Your task to perform on an android device: turn on location history Image 0: 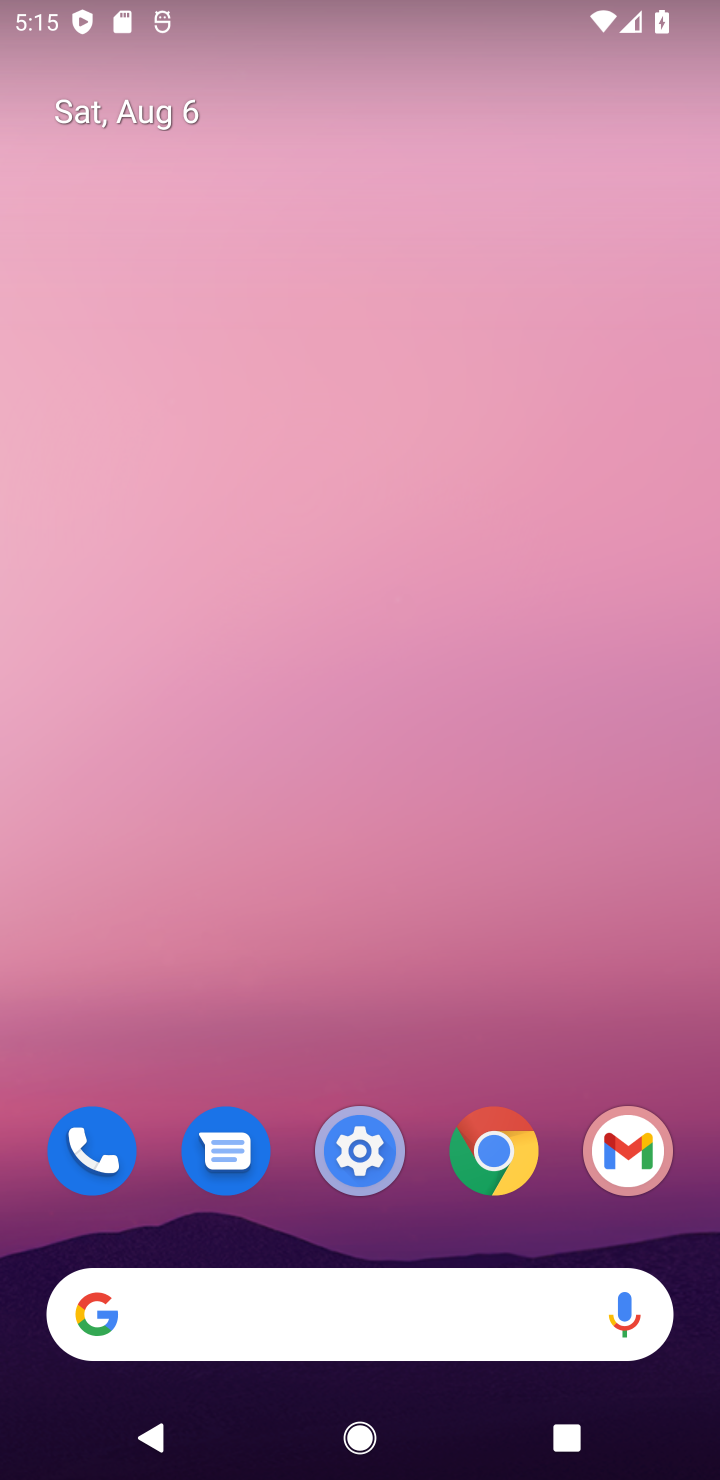
Step 0: drag from (256, 708) to (324, 380)
Your task to perform on an android device: turn on location history Image 1: 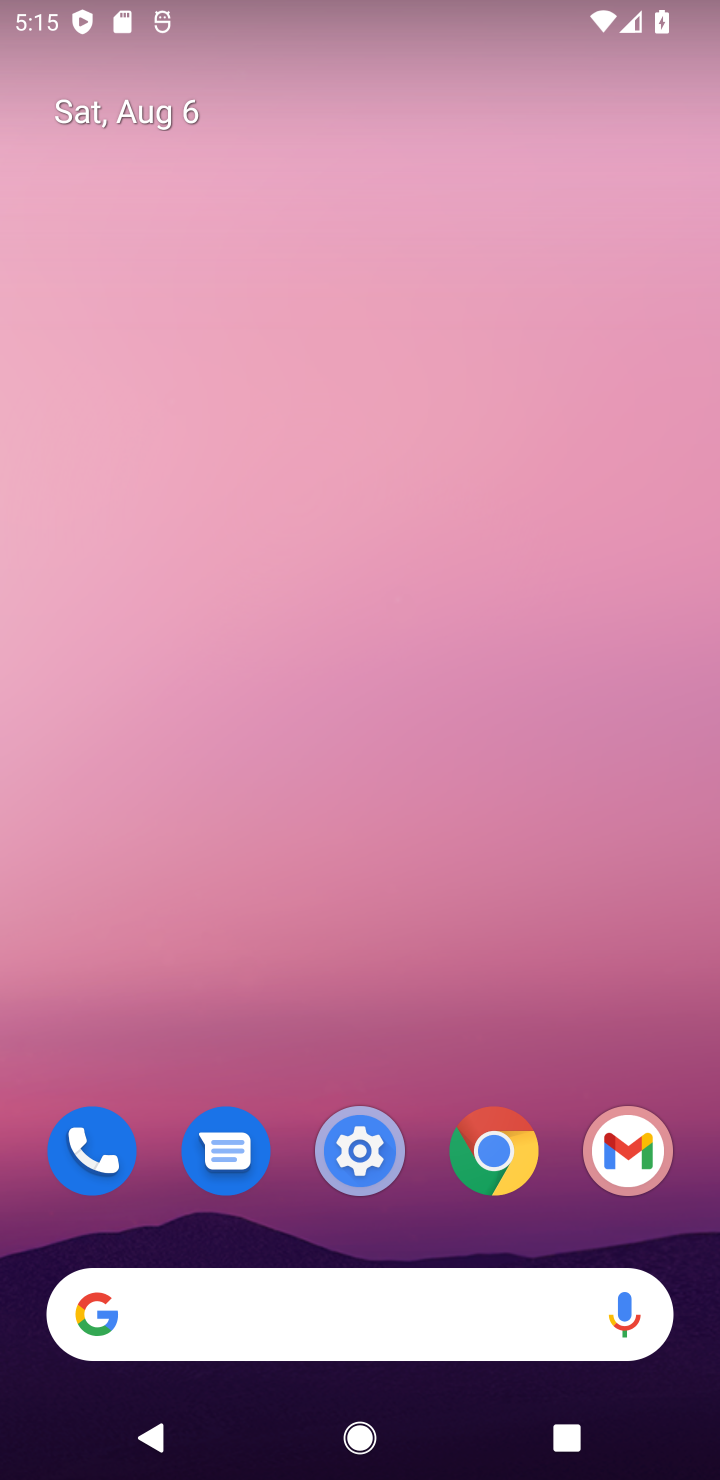
Step 1: drag from (145, 1069) to (406, 291)
Your task to perform on an android device: turn on location history Image 2: 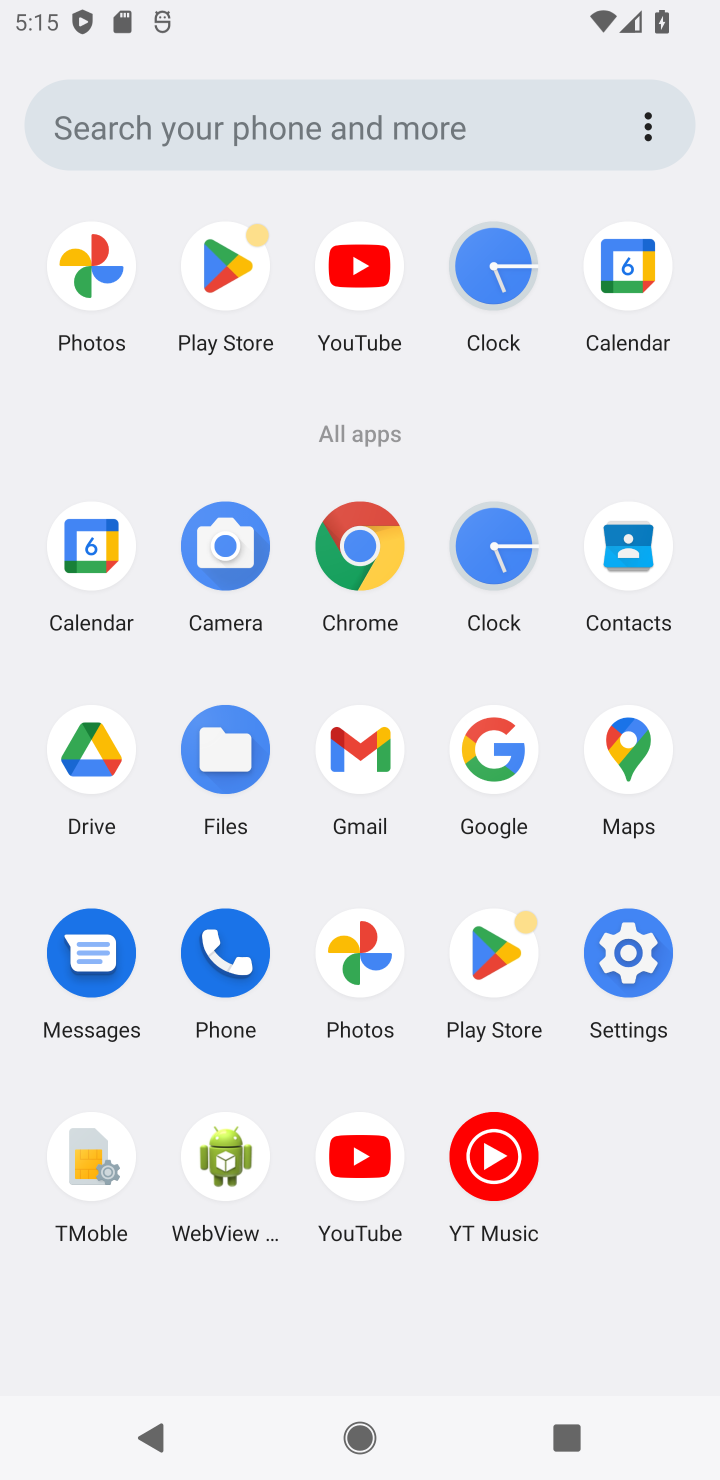
Step 2: click (613, 764)
Your task to perform on an android device: turn on location history Image 3: 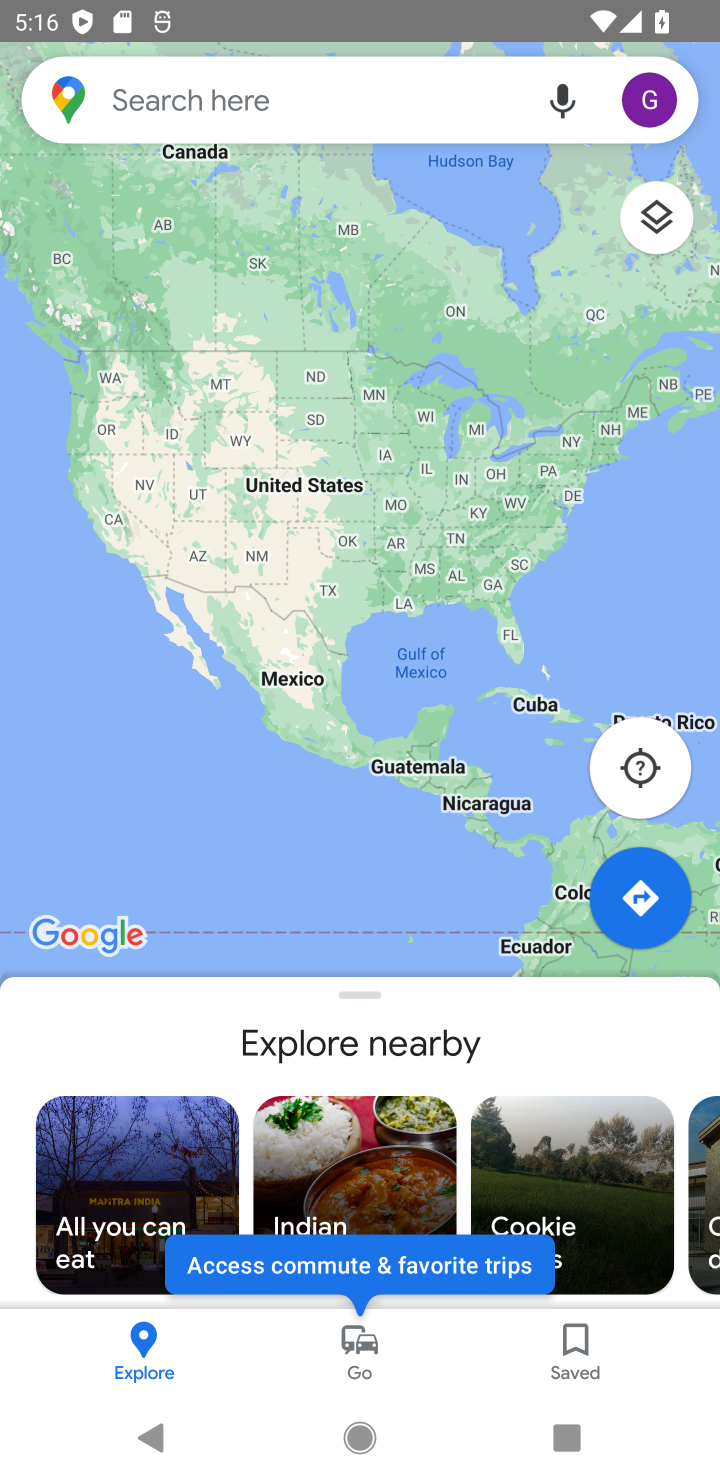
Step 3: click (653, 101)
Your task to perform on an android device: turn on location history Image 4: 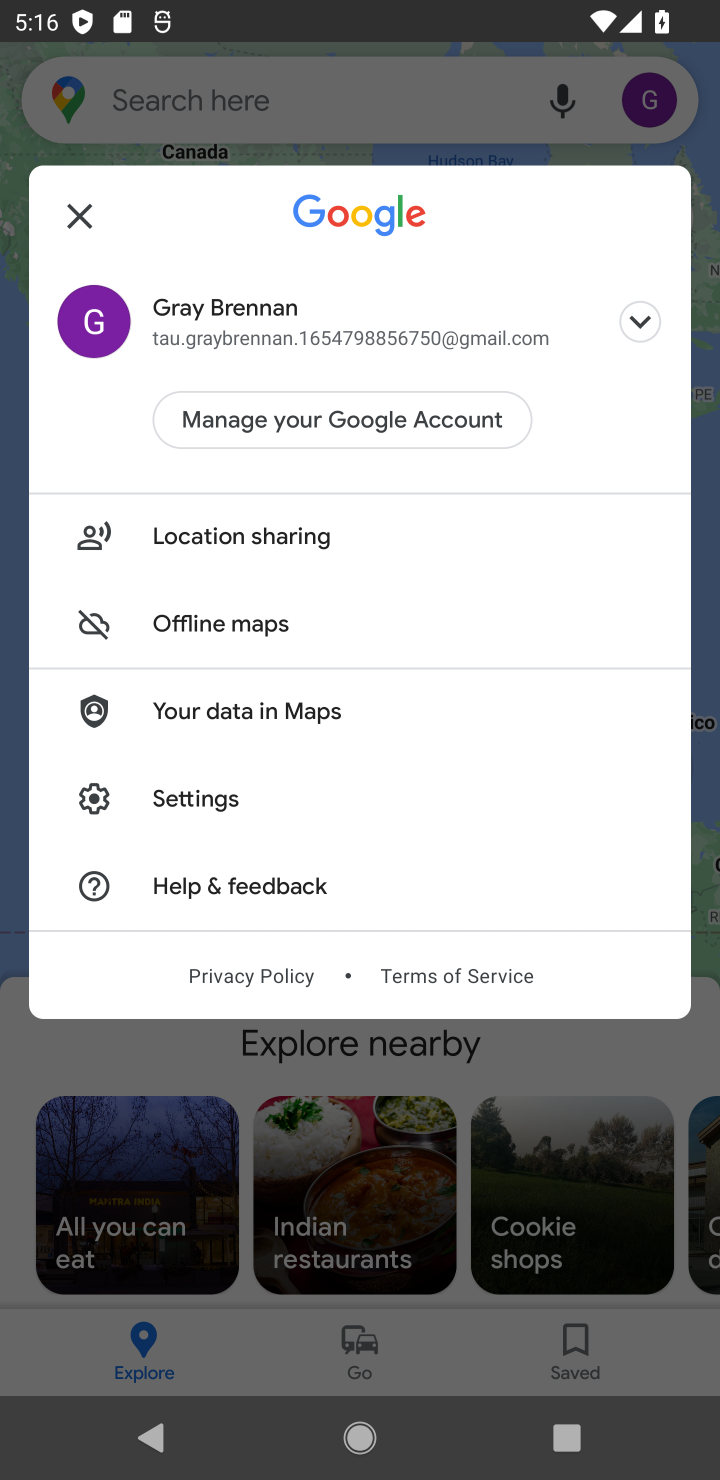
Step 4: click (177, 799)
Your task to perform on an android device: turn on location history Image 5: 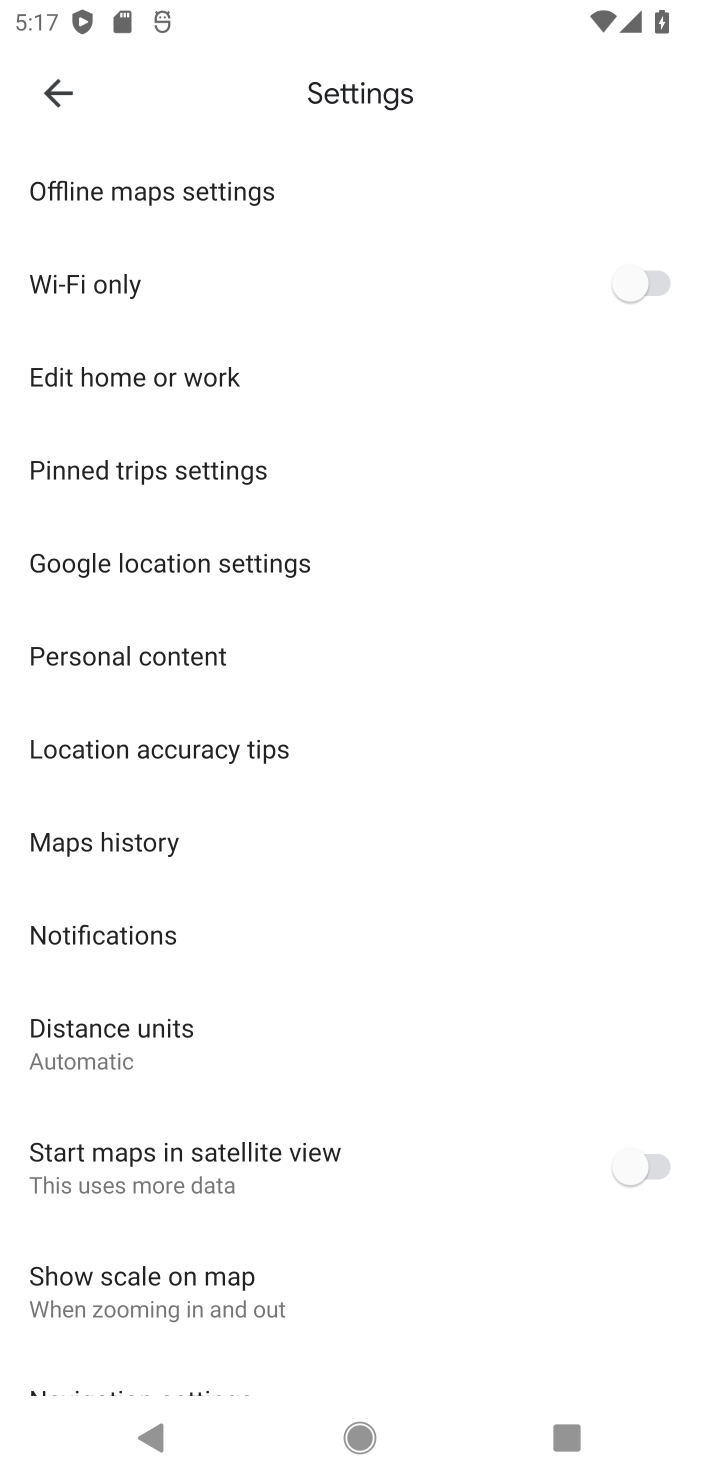
Step 5: click (281, 564)
Your task to perform on an android device: turn on location history Image 6: 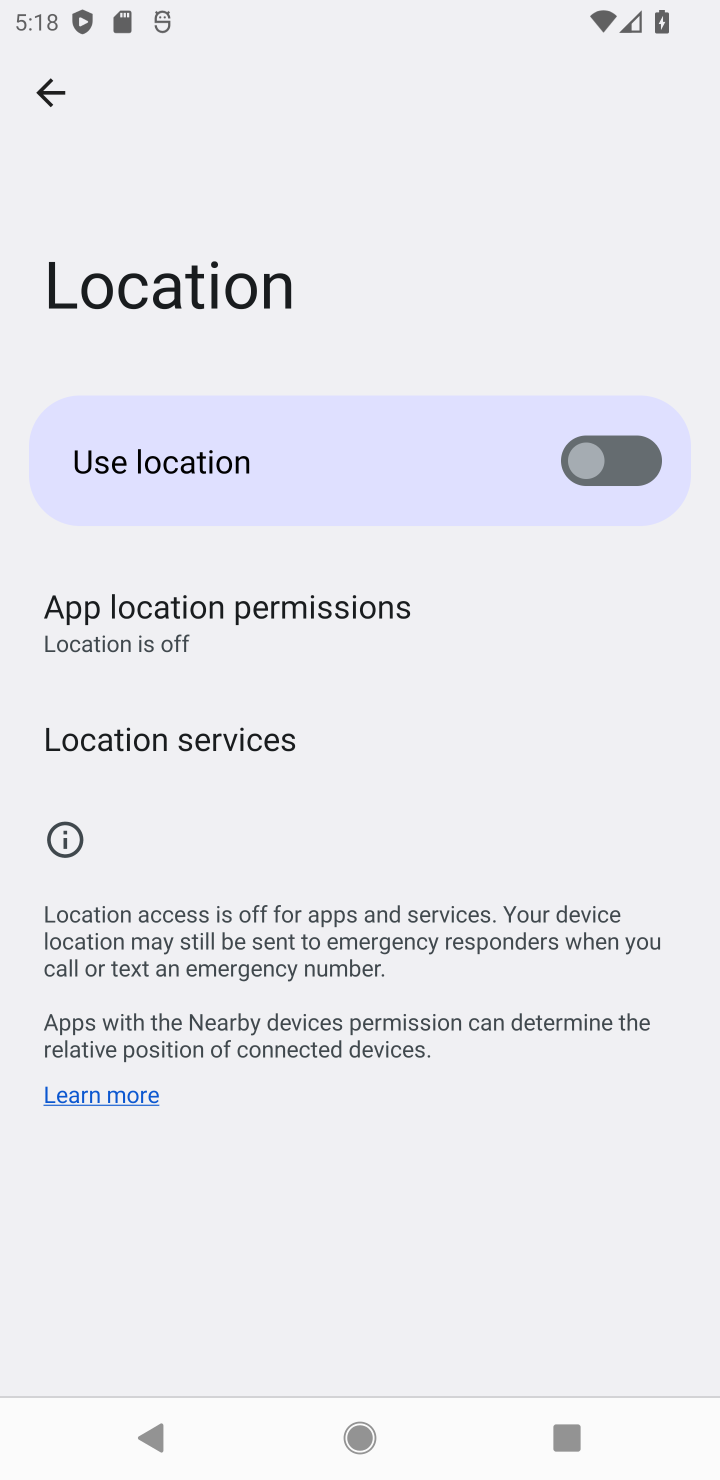
Step 6: click (54, 112)
Your task to perform on an android device: turn on location history Image 7: 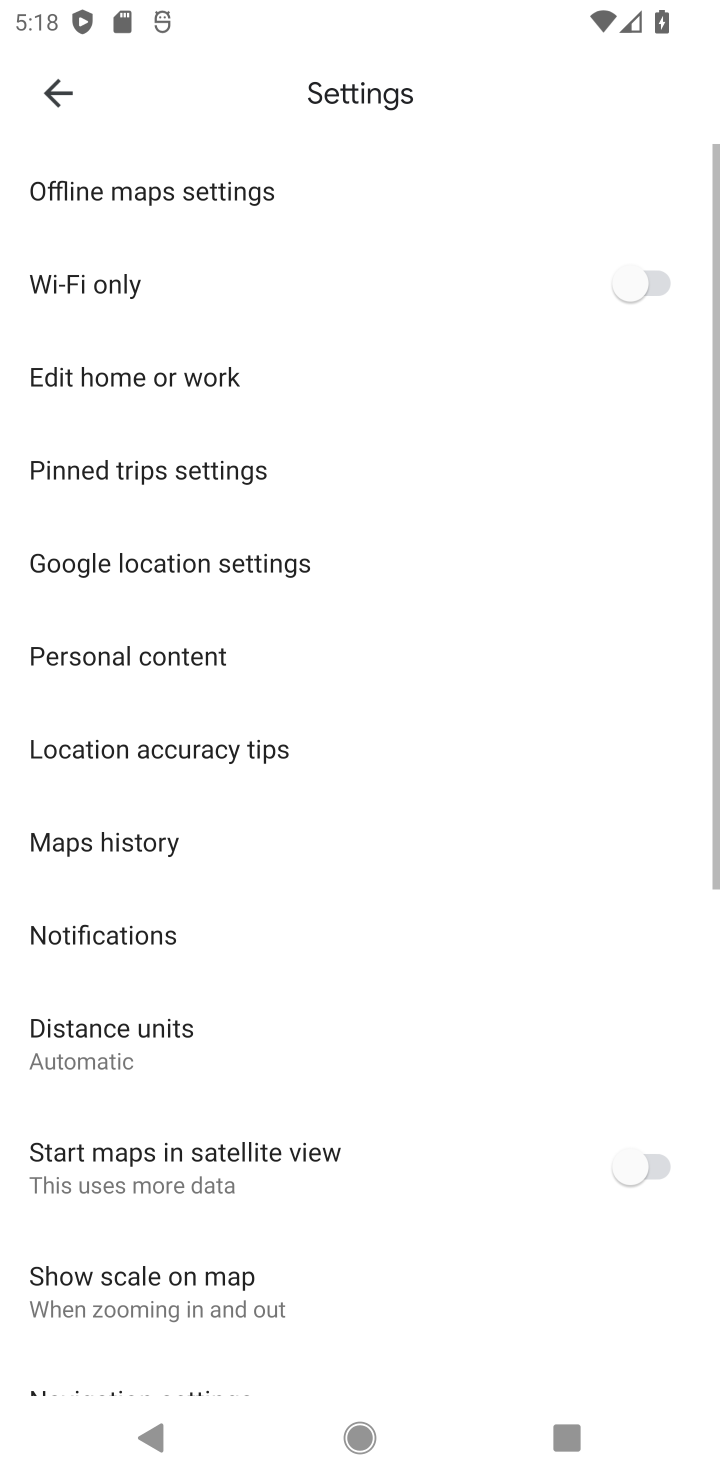
Step 7: task complete